Your task to perform on an android device: Open internet settings Image 0: 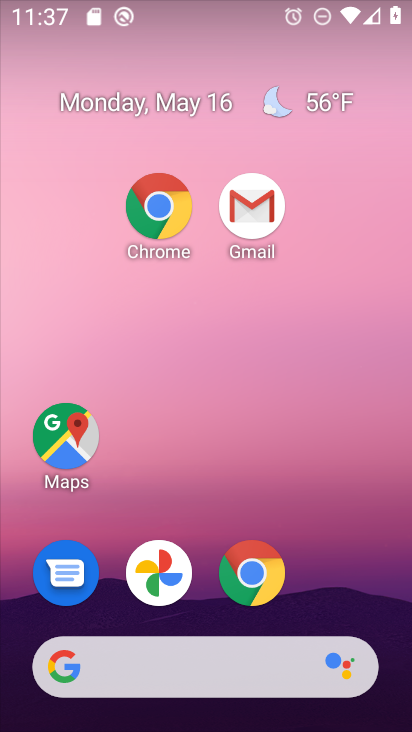
Step 0: drag from (342, 599) to (265, 83)
Your task to perform on an android device: Open internet settings Image 1: 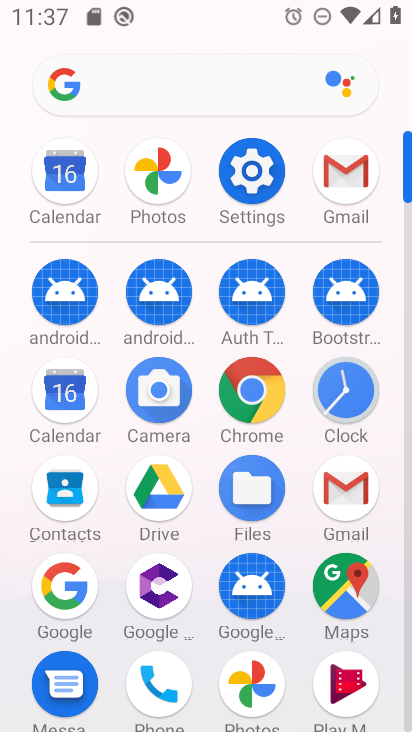
Step 1: click (244, 194)
Your task to perform on an android device: Open internet settings Image 2: 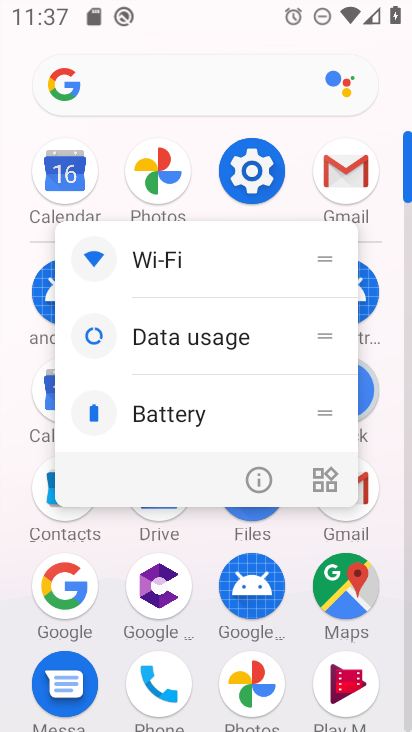
Step 2: click (200, 256)
Your task to perform on an android device: Open internet settings Image 3: 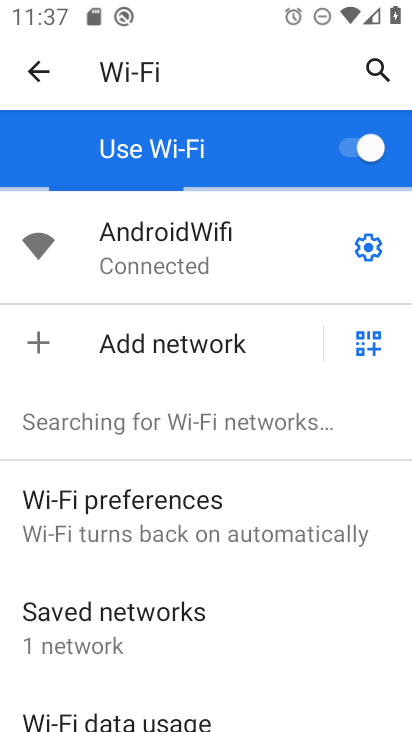
Step 3: click (37, 74)
Your task to perform on an android device: Open internet settings Image 4: 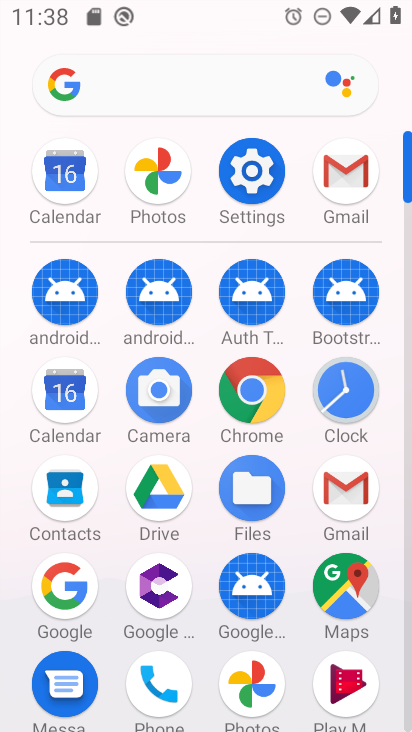
Step 4: click (240, 170)
Your task to perform on an android device: Open internet settings Image 5: 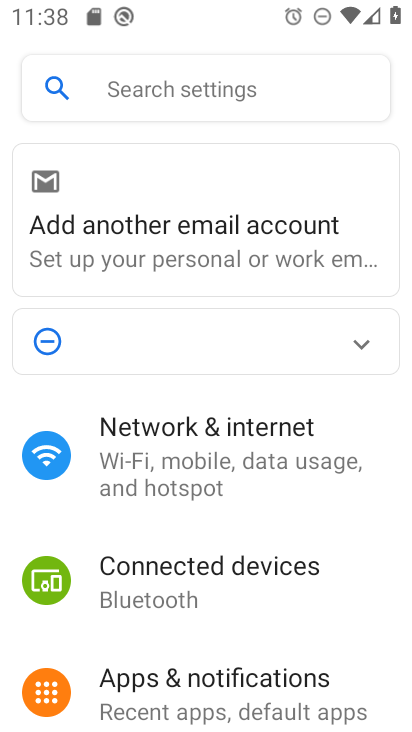
Step 5: click (192, 461)
Your task to perform on an android device: Open internet settings Image 6: 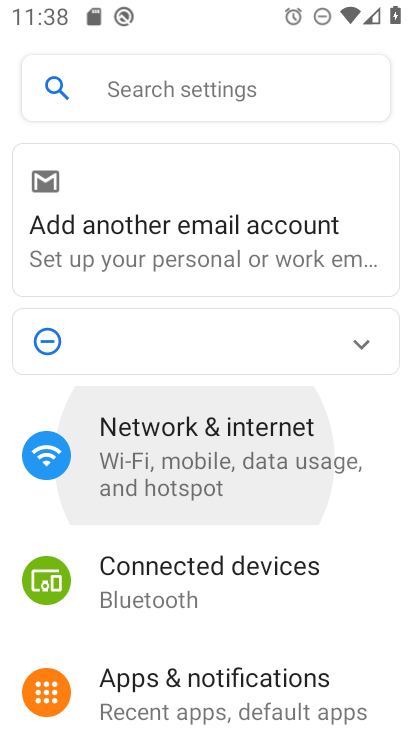
Step 6: click (192, 461)
Your task to perform on an android device: Open internet settings Image 7: 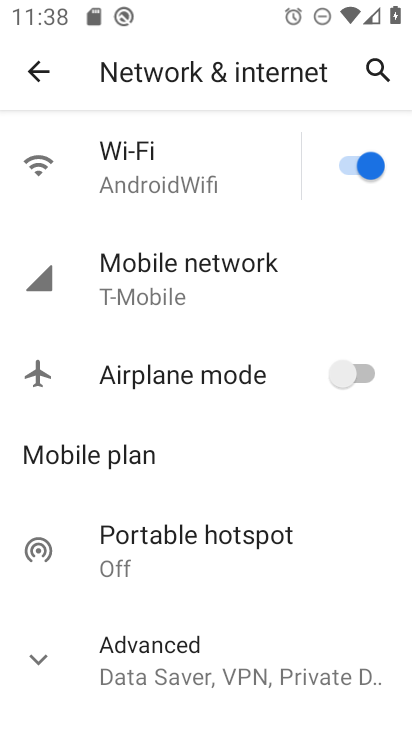
Step 7: task complete